Your task to perform on an android device: What is the recent news? Image 0: 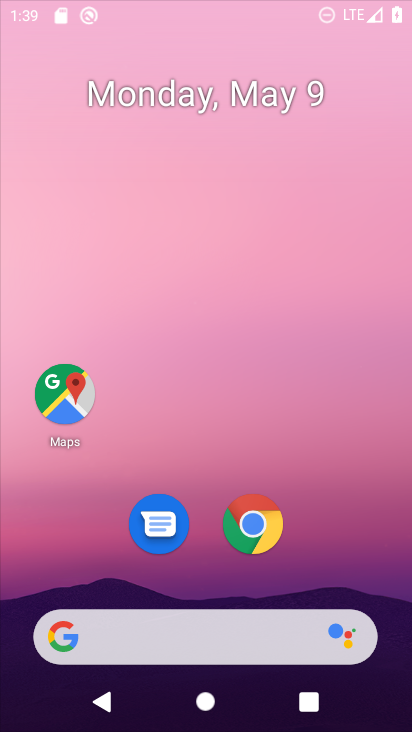
Step 0: drag from (307, 536) to (205, 93)
Your task to perform on an android device: What is the recent news? Image 1: 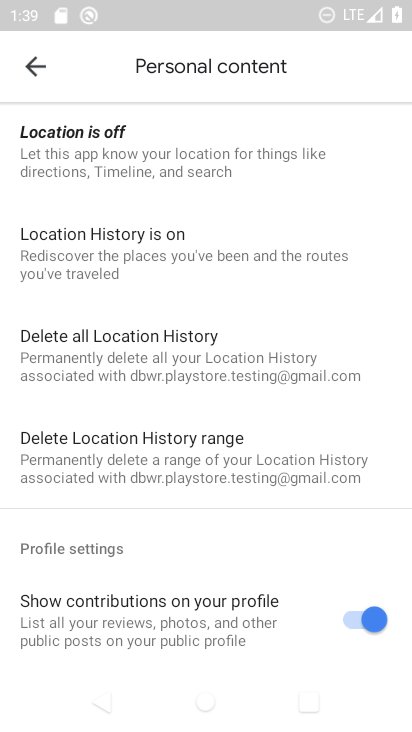
Step 1: press home button
Your task to perform on an android device: What is the recent news? Image 2: 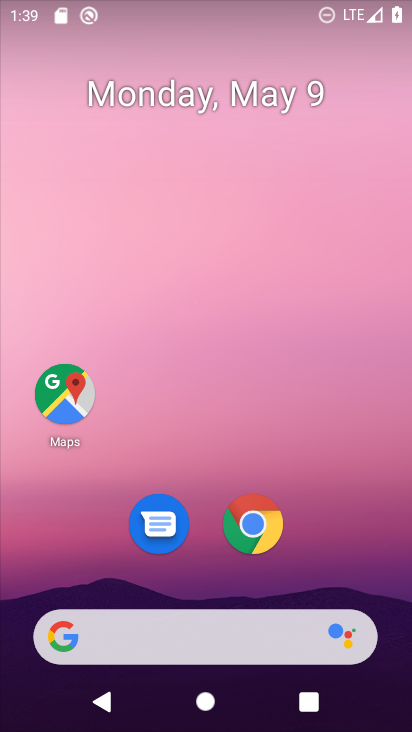
Step 2: click (77, 629)
Your task to perform on an android device: What is the recent news? Image 3: 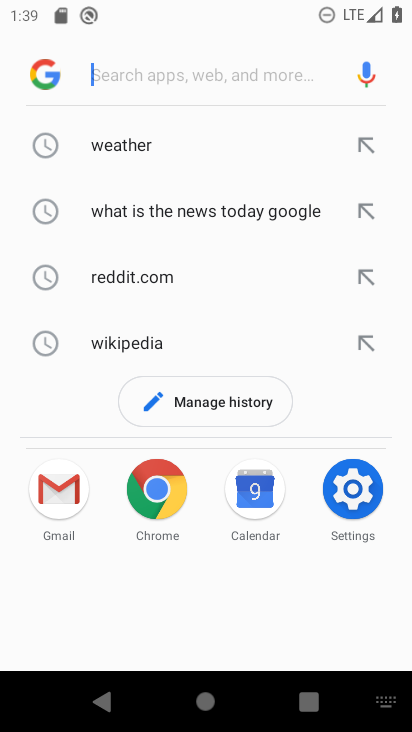
Step 3: click (54, 71)
Your task to perform on an android device: What is the recent news? Image 4: 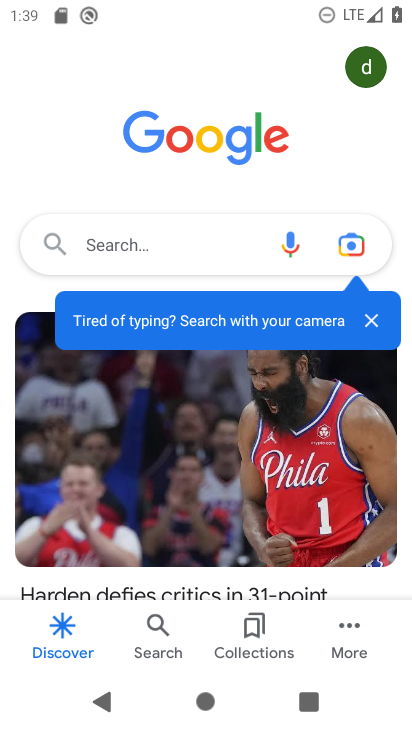
Step 4: click (148, 241)
Your task to perform on an android device: What is the recent news? Image 5: 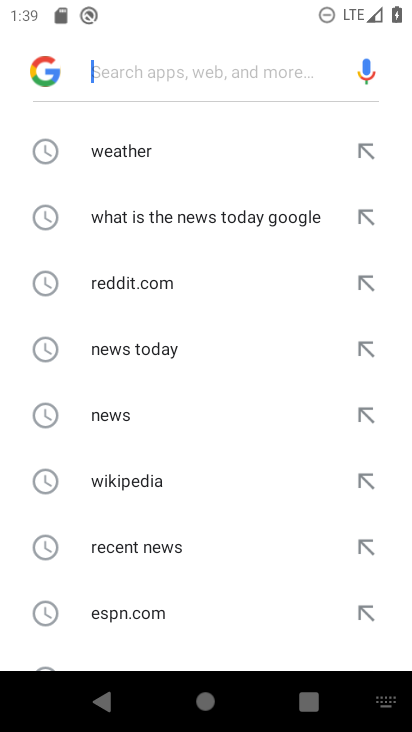
Step 5: click (64, 410)
Your task to perform on an android device: What is the recent news? Image 6: 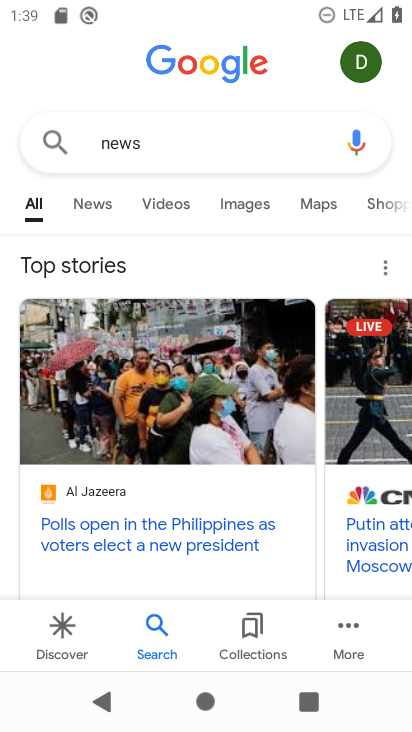
Step 6: click (92, 196)
Your task to perform on an android device: What is the recent news? Image 7: 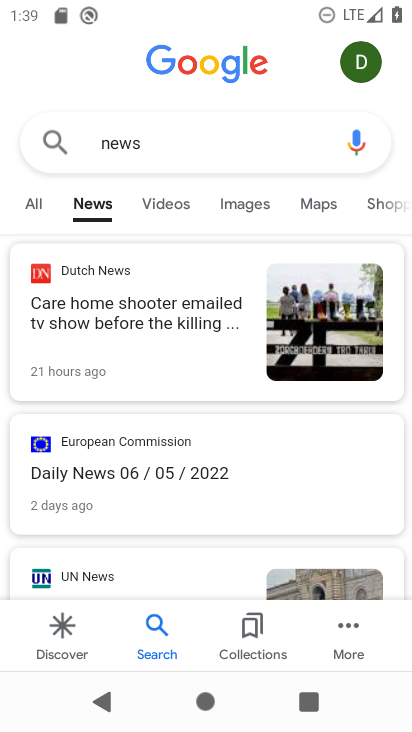
Step 7: task complete